Your task to perform on an android device: Go to Android settings Image 0: 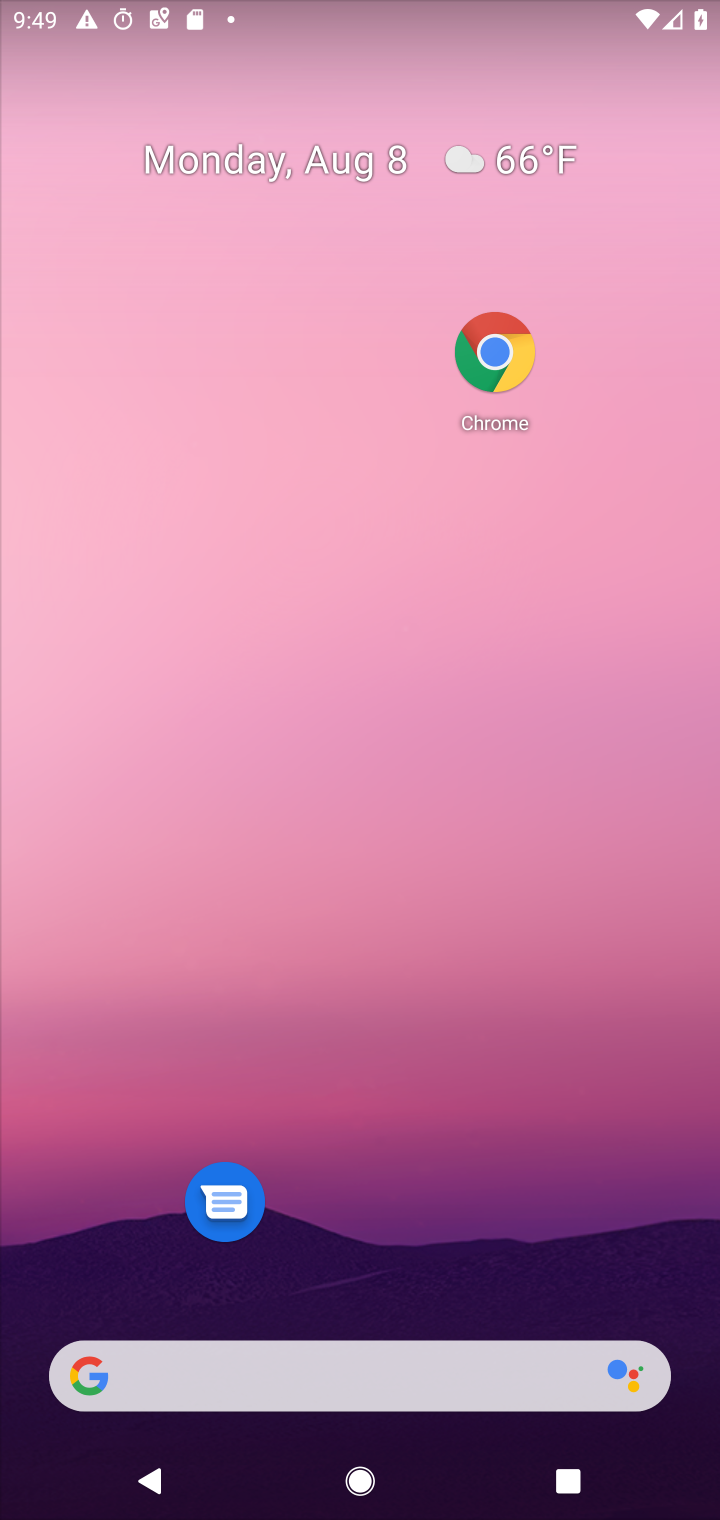
Step 0: drag from (520, 1179) to (656, 79)
Your task to perform on an android device: Go to Android settings Image 1: 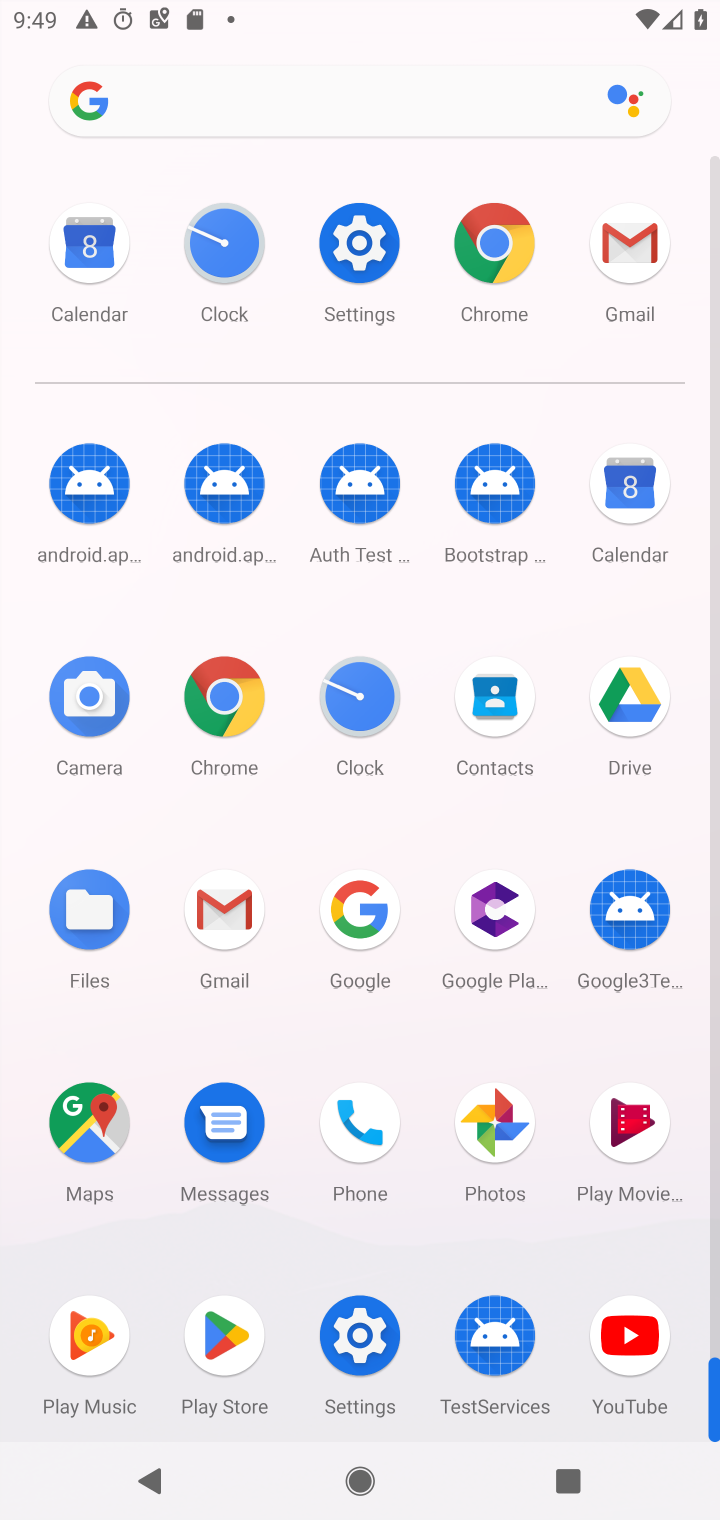
Step 1: click (383, 252)
Your task to perform on an android device: Go to Android settings Image 2: 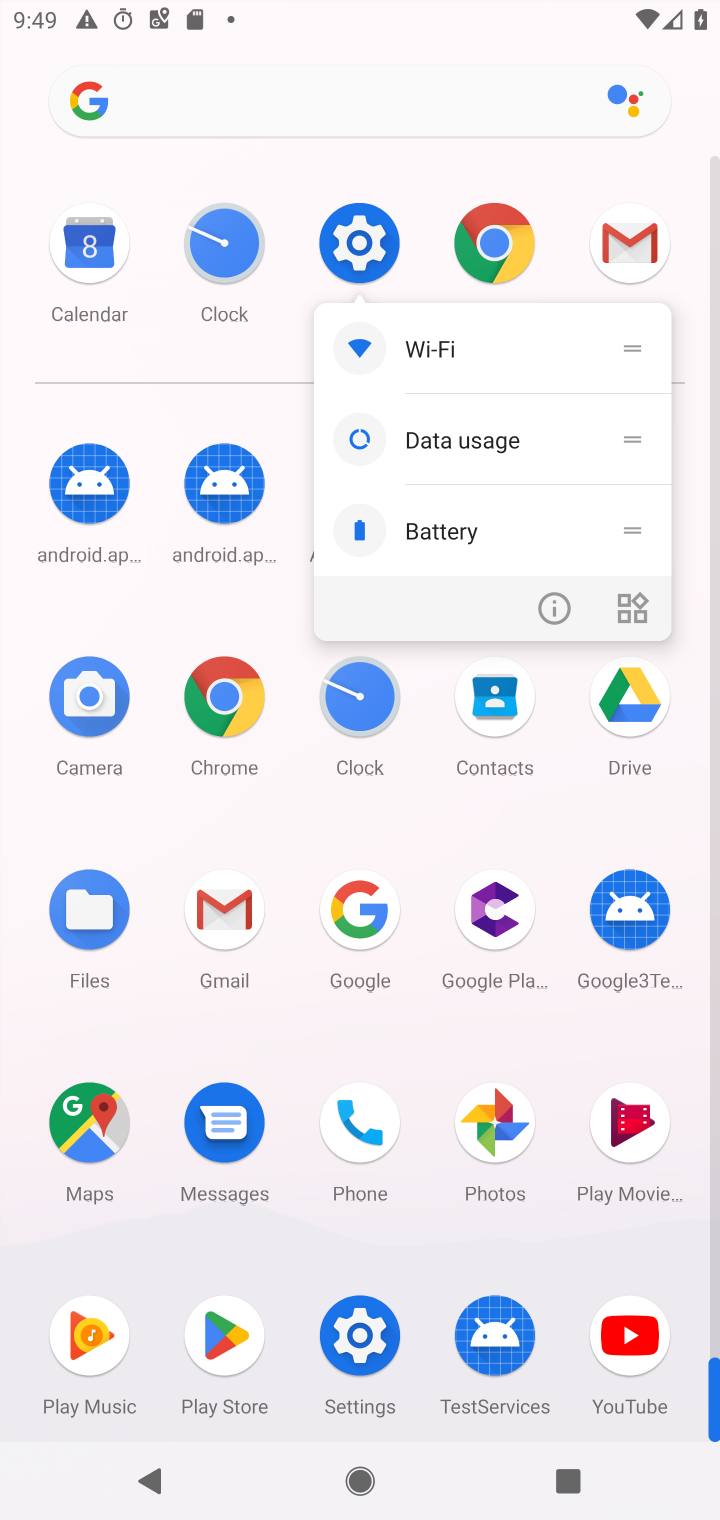
Step 2: click (383, 252)
Your task to perform on an android device: Go to Android settings Image 3: 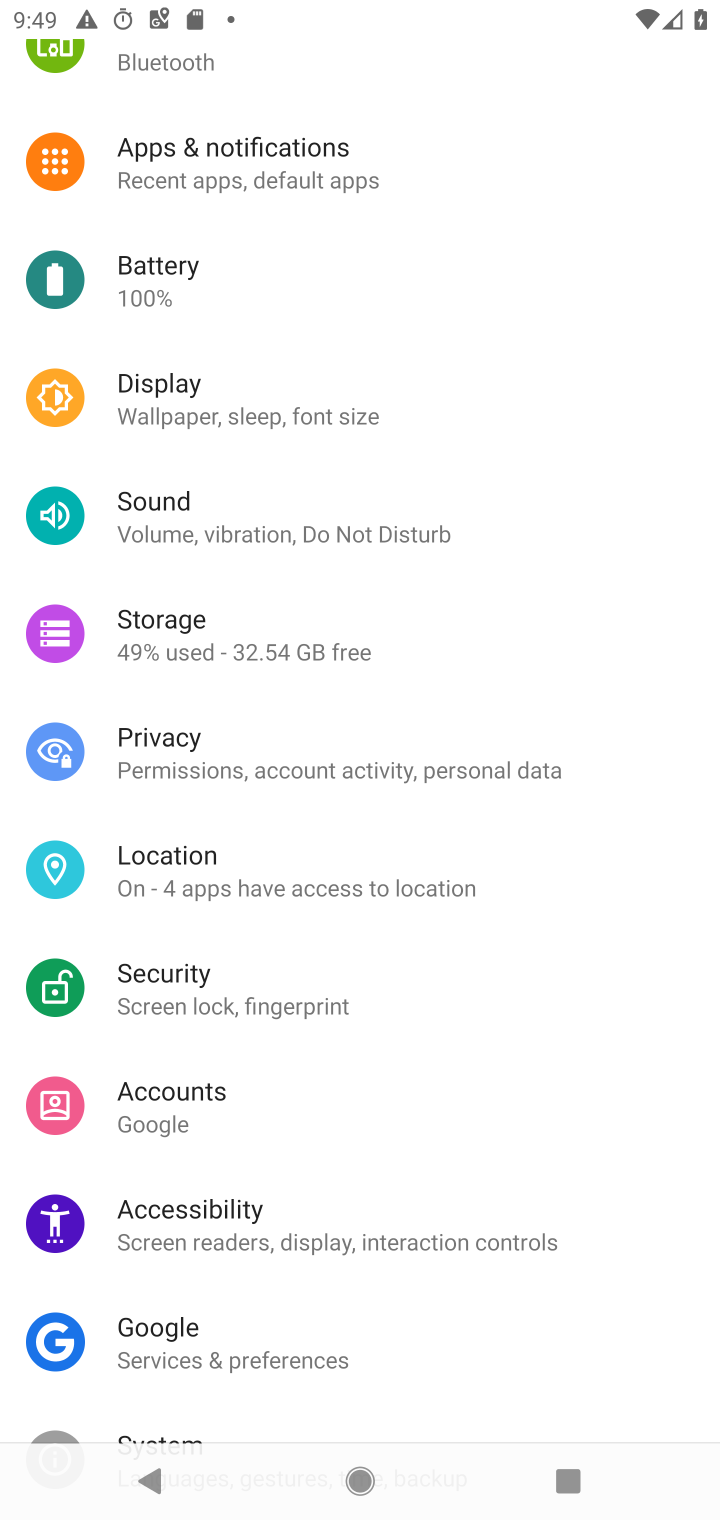
Step 3: drag from (286, 1186) to (579, 9)
Your task to perform on an android device: Go to Android settings Image 4: 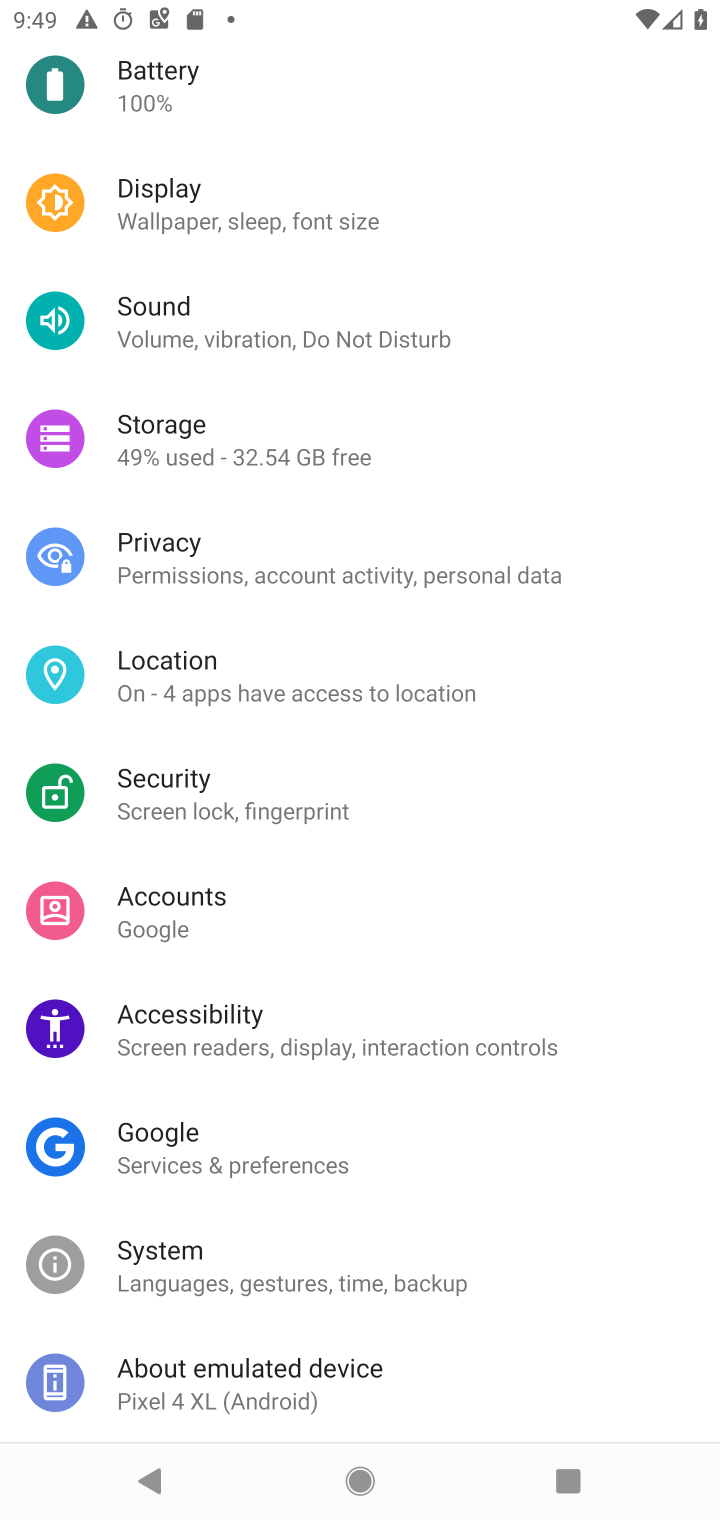
Step 4: drag from (374, 1115) to (486, 477)
Your task to perform on an android device: Go to Android settings Image 5: 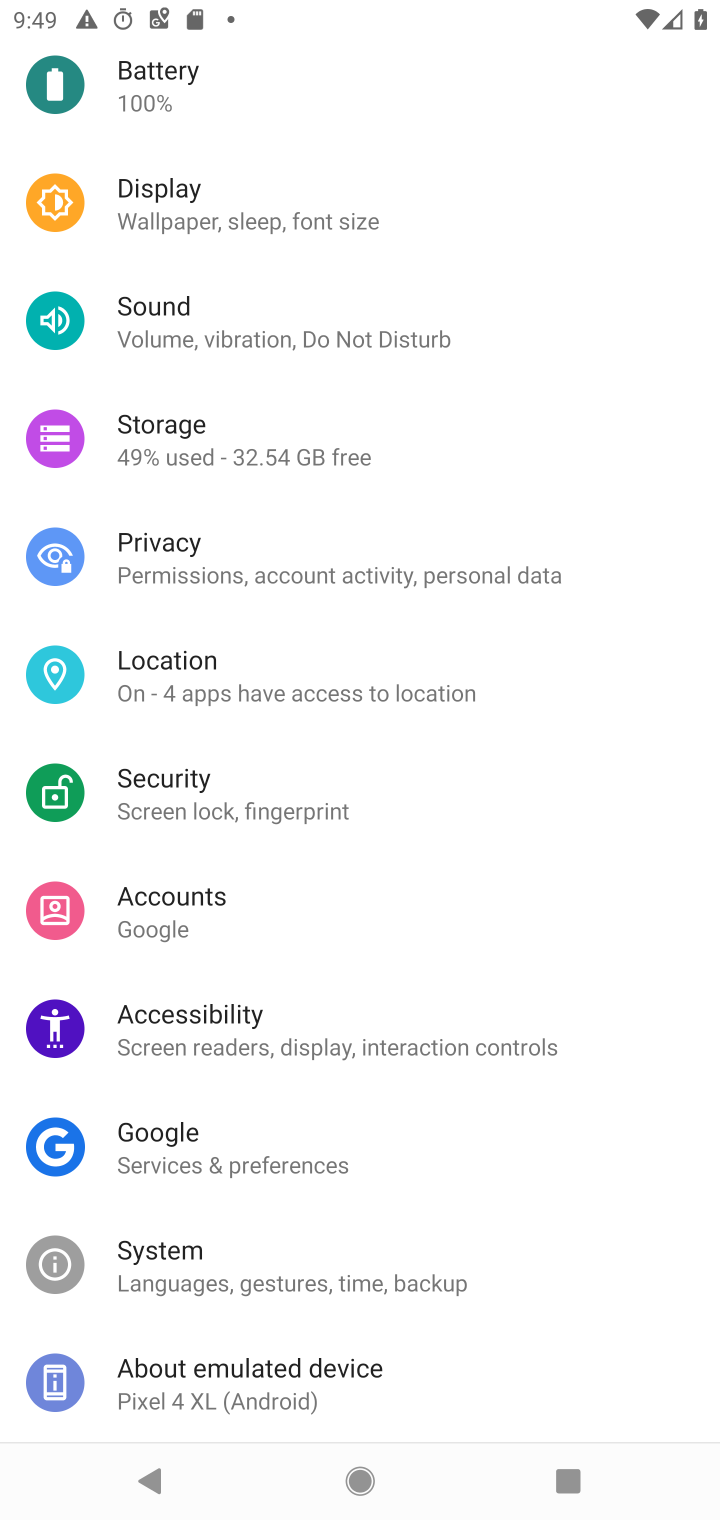
Step 5: click (328, 1374)
Your task to perform on an android device: Go to Android settings Image 6: 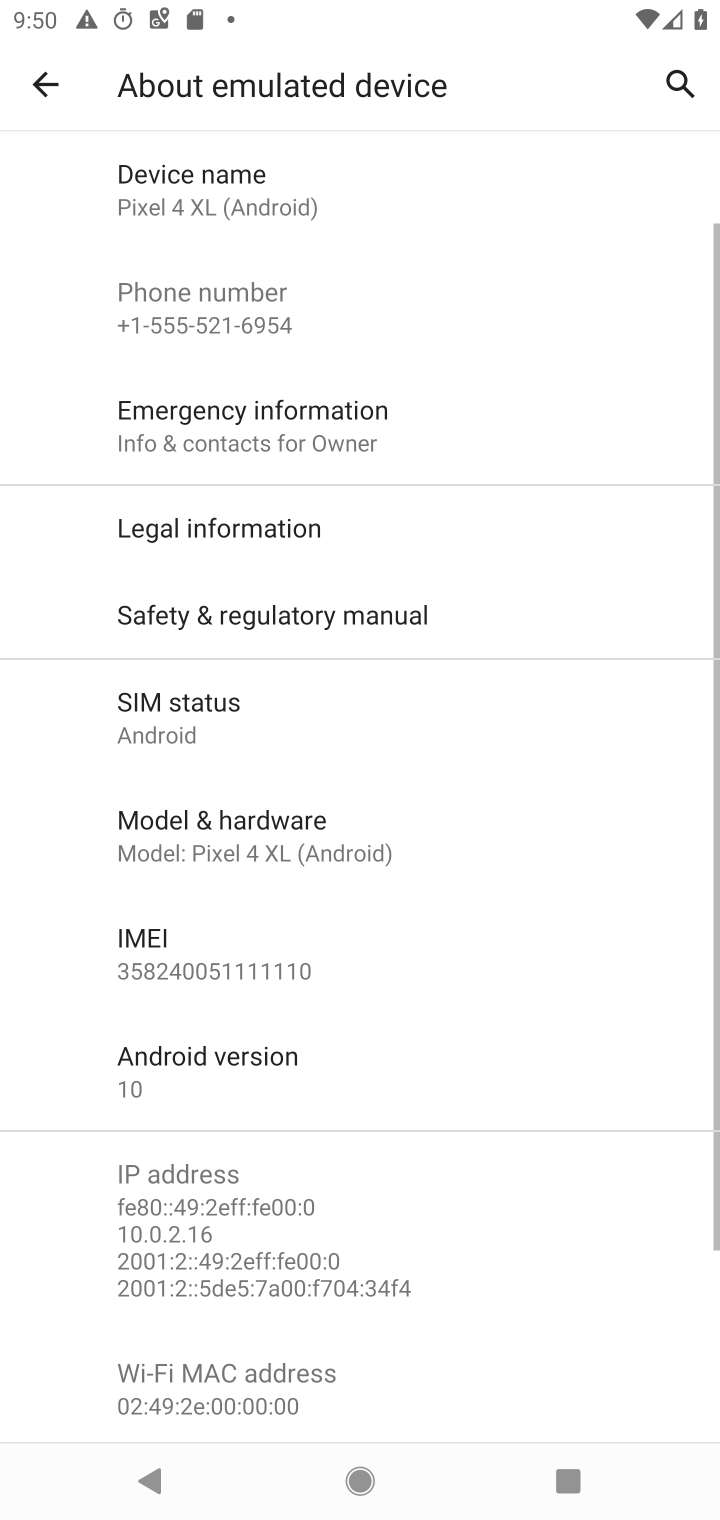
Step 6: click (272, 1070)
Your task to perform on an android device: Go to Android settings Image 7: 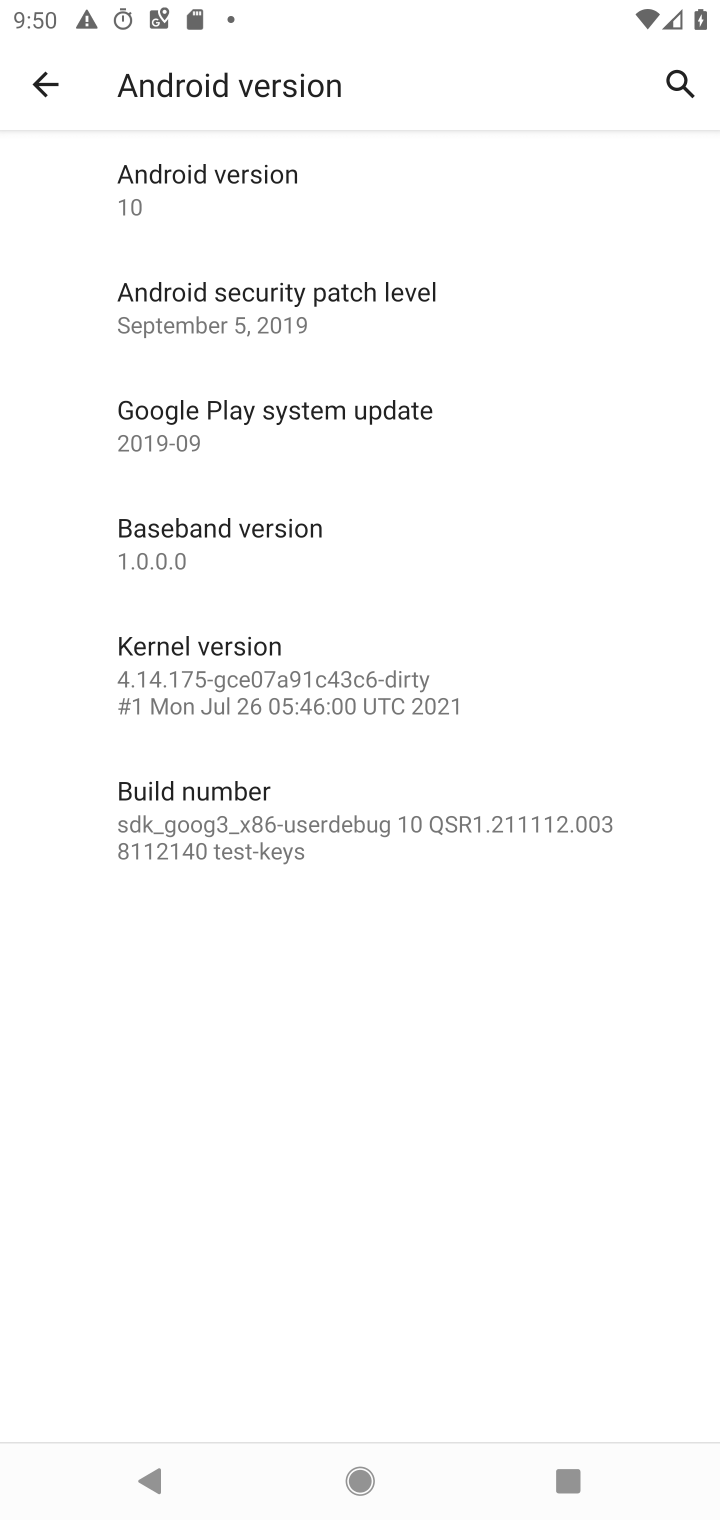
Step 7: task complete